Your task to perform on an android device: Go to accessibility settings Image 0: 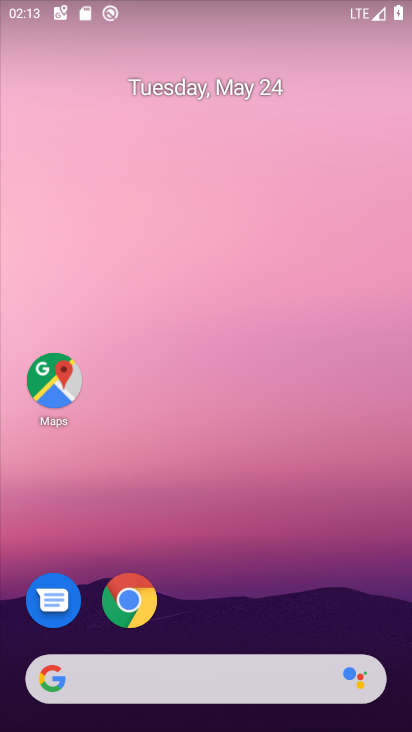
Step 0: drag from (335, 563) to (240, 254)
Your task to perform on an android device: Go to accessibility settings Image 1: 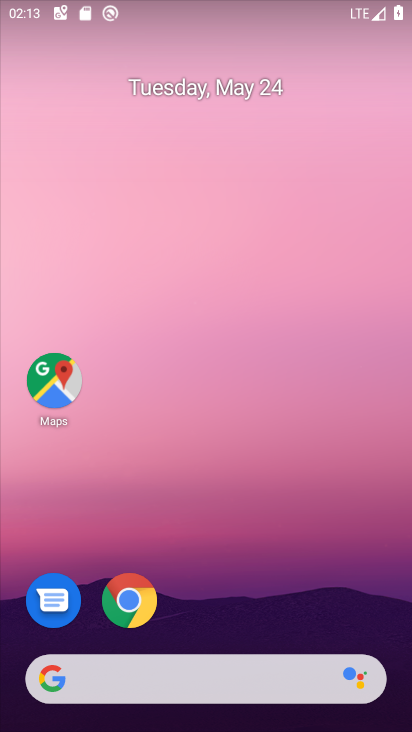
Step 1: drag from (267, 608) to (190, 360)
Your task to perform on an android device: Go to accessibility settings Image 2: 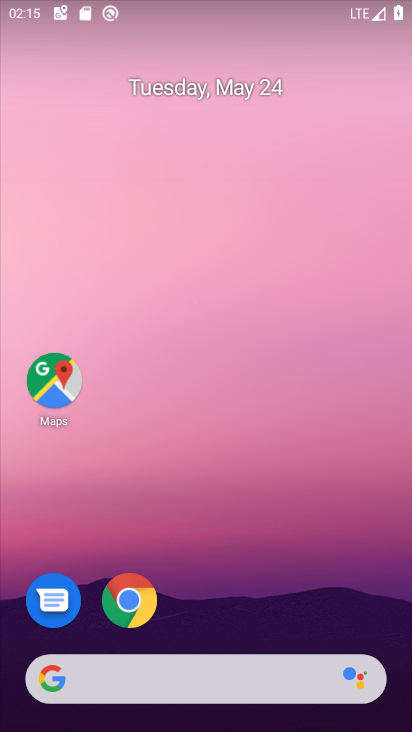
Step 2: drag from (209, 559) to (211, 217)
Your task to perform on an android device: Go to accessibility settings Image 3: 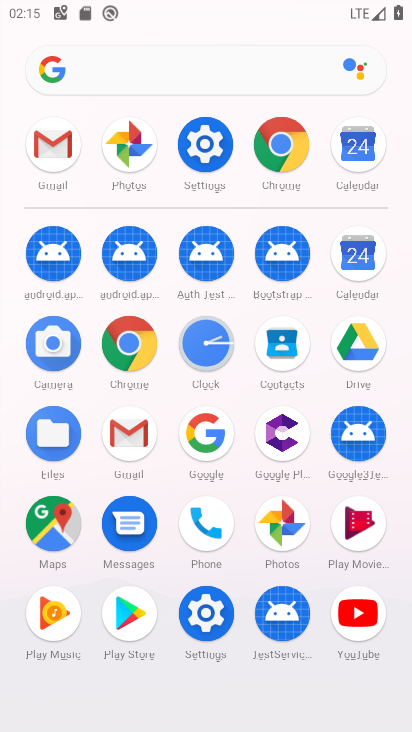
Step 3: click (188, 133)
Your task to perform on an android device: Go to accessibility settings Image 4: 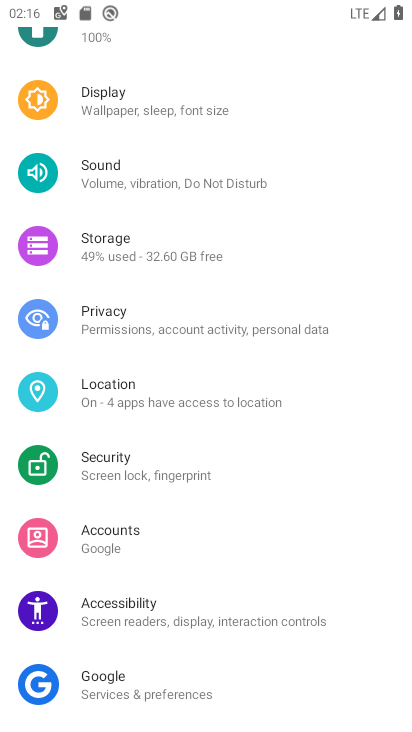
Step 4: click (223, 608)
Your task to perform on an android device: Go to accessibility settings Image 5: 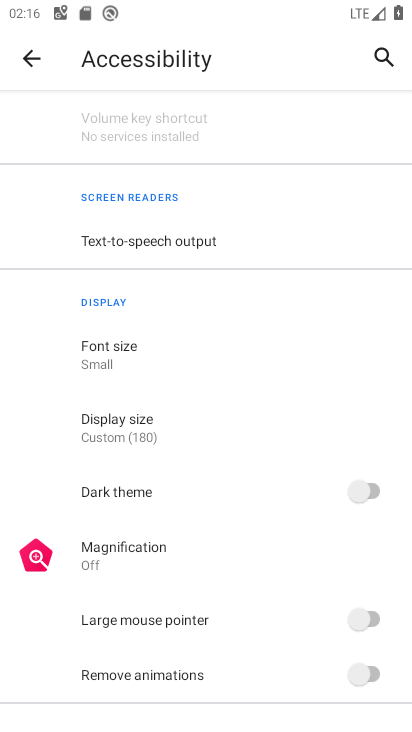
Step 5: task complete